Your task to perform on an android device: Open calendar and show me the third week of next month Image 0: 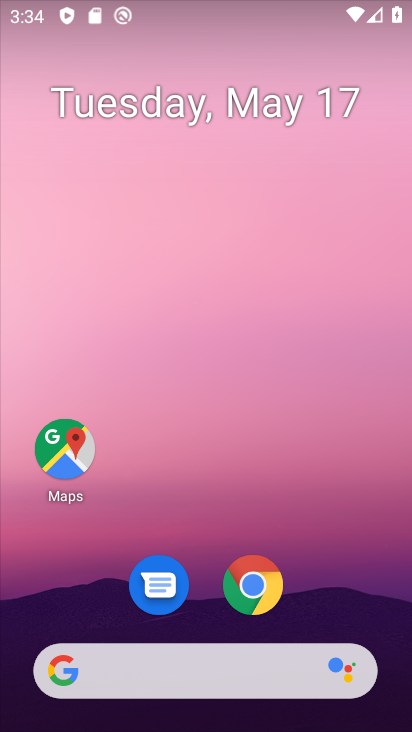
Step 0: drag from (342, 549) to (267, 0)
Your task to perform on an android device: Open calendar and show me the third week of next month Image 1: 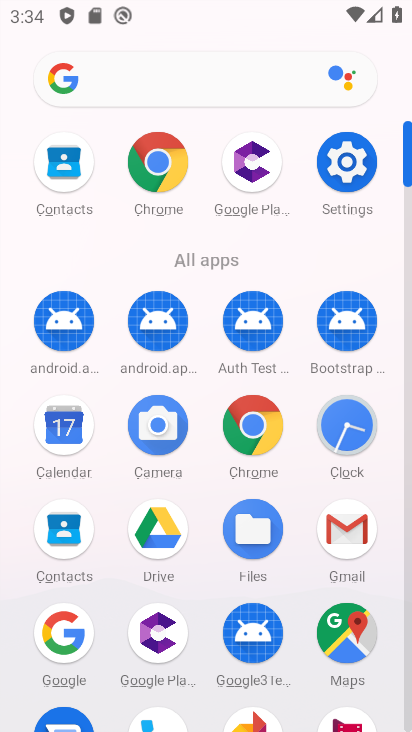
Step 1: click (55, 421)
Your task to perform on an android device: Open calendar and show me the third week of next month Image 2: 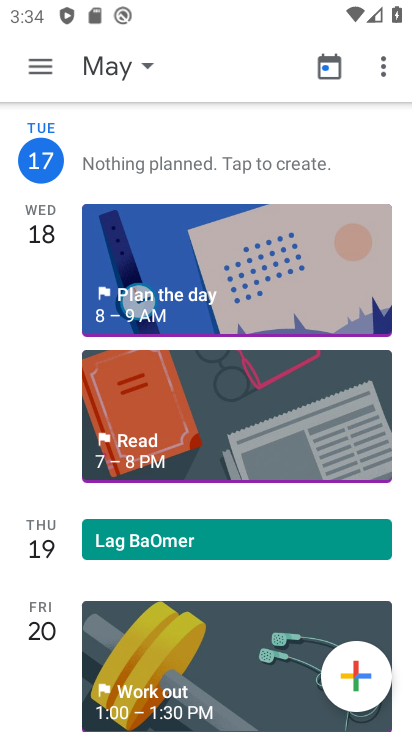
Step 2: click (43, 63)
Your task to perform on an android device: Open calendar and show me the third week of next month Image 3: 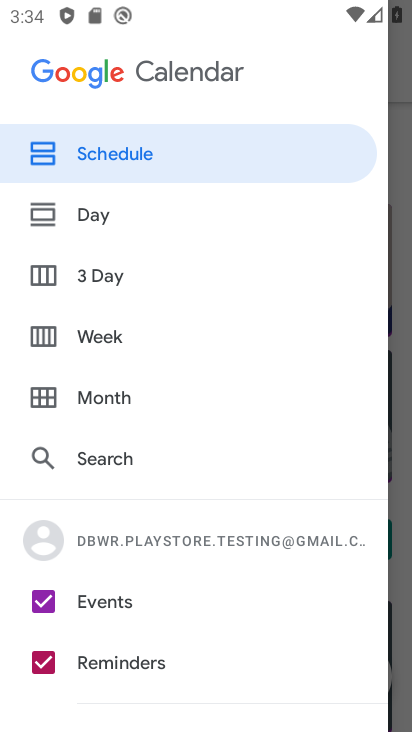
Step 3: click (40, 326)
Your task to perform on an android device: Open calendar and show me the third week of next month Image 4: 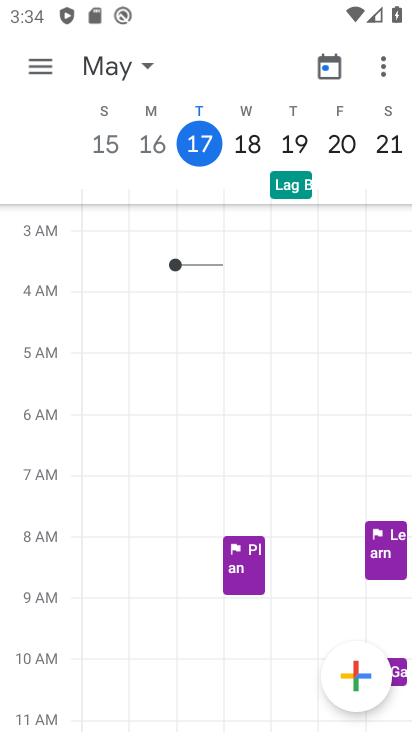
Step 4: drag from (375, 356) to (0, 410)
Your task to perform on an android device: Open calendar and show me the third week of next month Image 5: 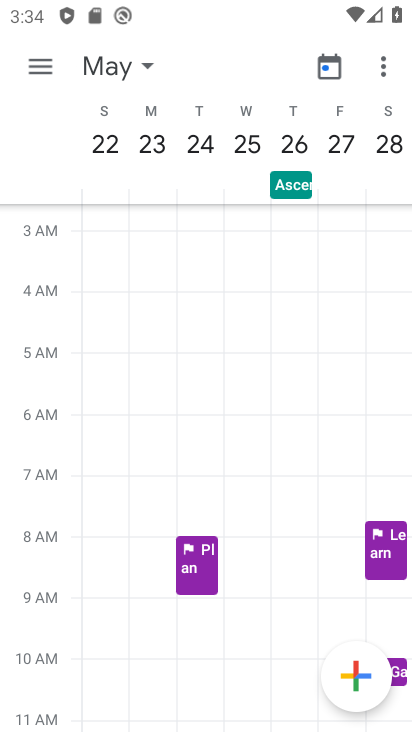
Step 5: click (380, 370)
Your task to perform on an android device: Open calendar and show me the third week of next month Image 6: 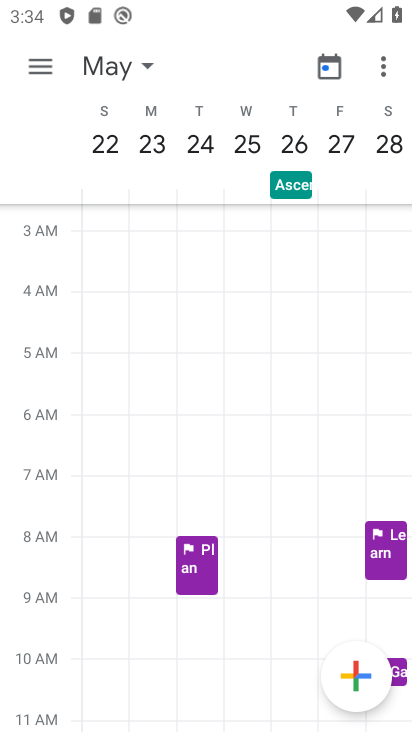
Step 6: drag from (371, 373) to (3, 380)
Your task to perform on an android device: Open calendar and show me the third week of next month Image 7: 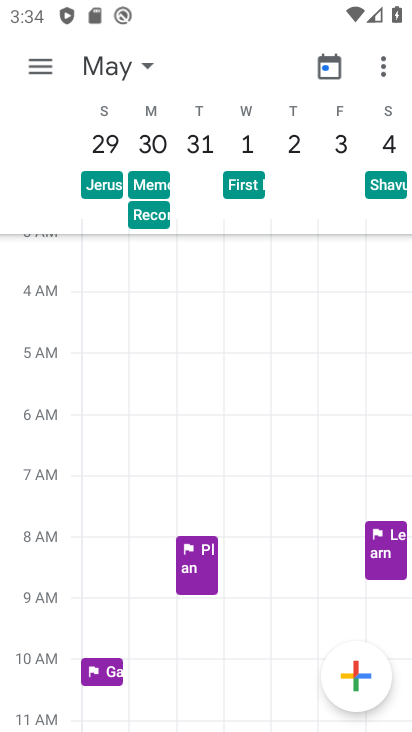
Step 7: drag from (384, 341) to (0, 318)
Your task to perform on an android device: Open calendar and show me the third week of next month Image 8: 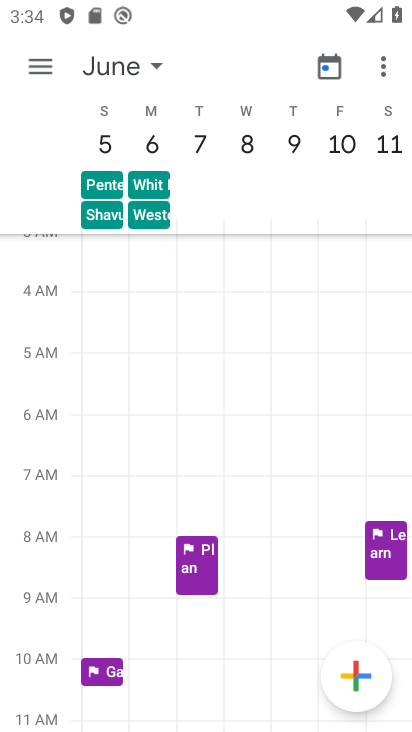
Step 8: click (384, 347)
Your task to perform on an android device: Open calendar and show me the third week of next month Image 9: 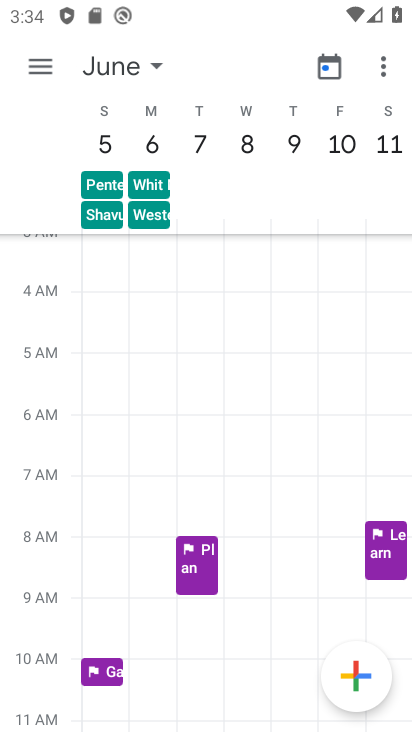
Step 9: task complete